Your task to perform on an android device: find which apps use the phone's location Image 0: 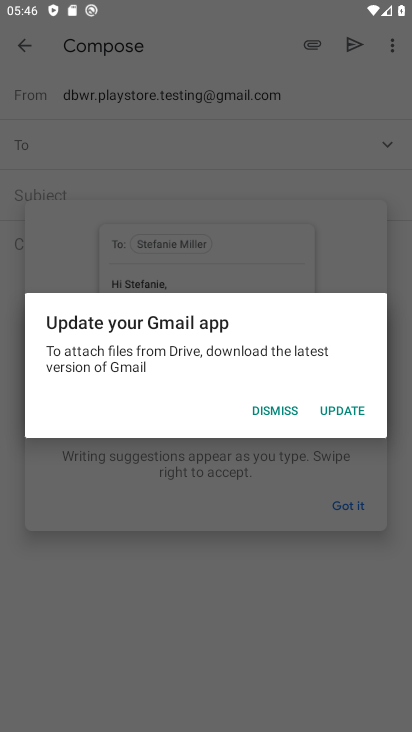
Step 0: press home button
Your task to perform on an android device: find which apps use the phone's location Image 1: 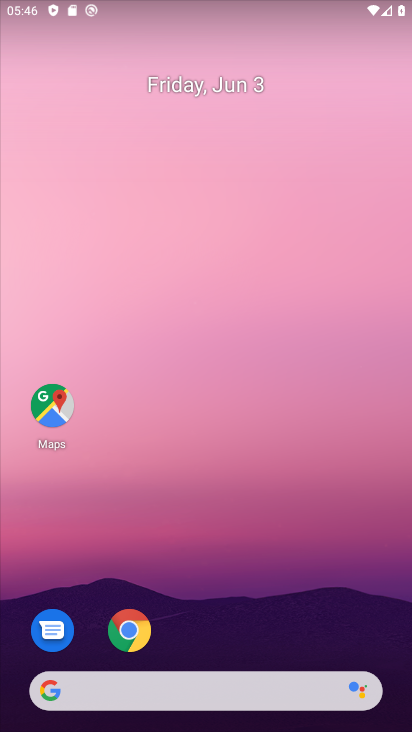
Step 1: drag from (218, 658) to (264, 122)
Your task to perform on an android device: find which apps use the phone's location Image 2: 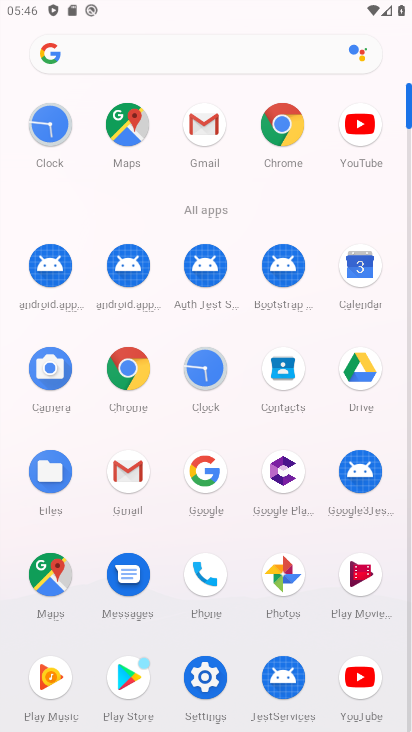
Step 2: click (211, 677)
Your task to perform on an android device: find which apps use the phone's location Image 3: 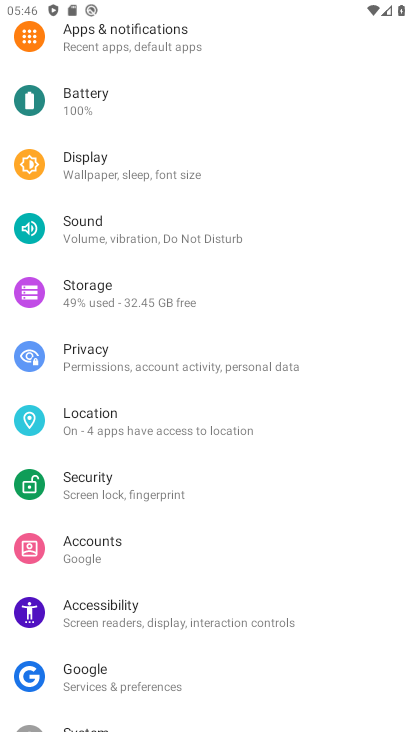
Step 3: click (120, 443)
Your task to perform on an android device: find which apps use the phone's location Image 4: 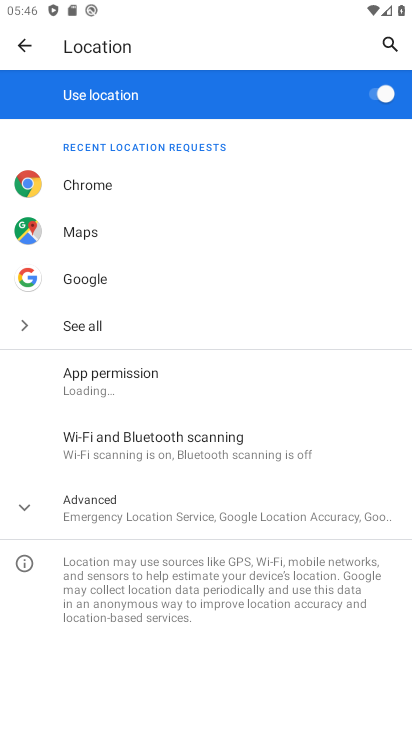
Step 4: task complete